Your task to perform on an android device: toggle wifi Image 0: 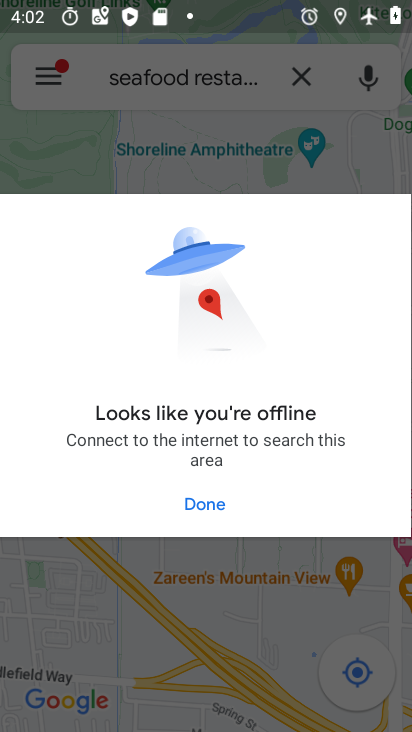
Step 0: press home button
Your task to perform on an android device: toggle wifi Image 1: 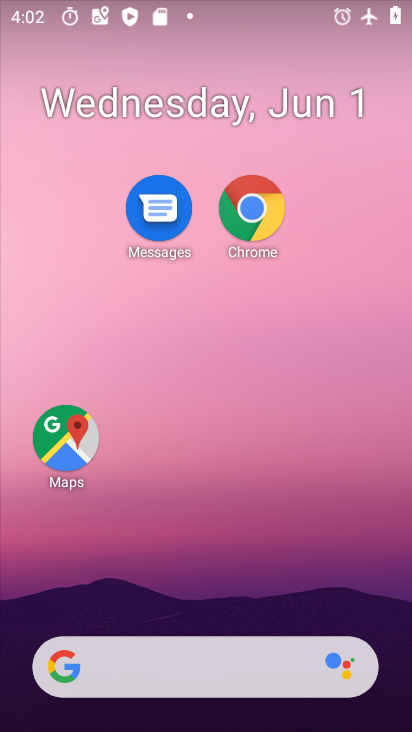
Step 1: drag from (226, 606) to (230, 165)
Your task to perform on an android device: toggle wifi Image 2: 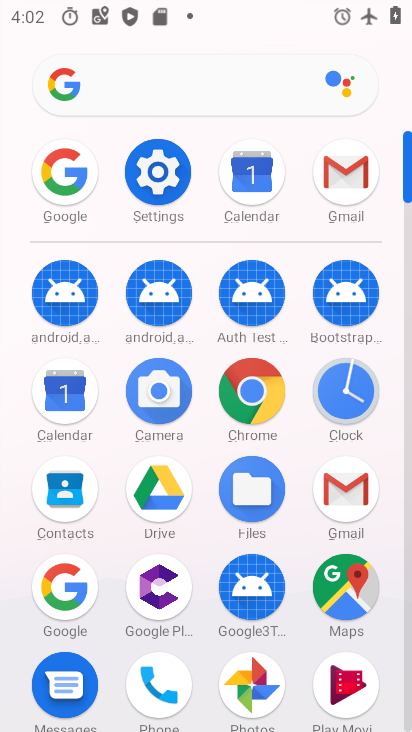
Step 2: click (173, 164)
Your task to perform on an android device: toggle wifi Image 3: 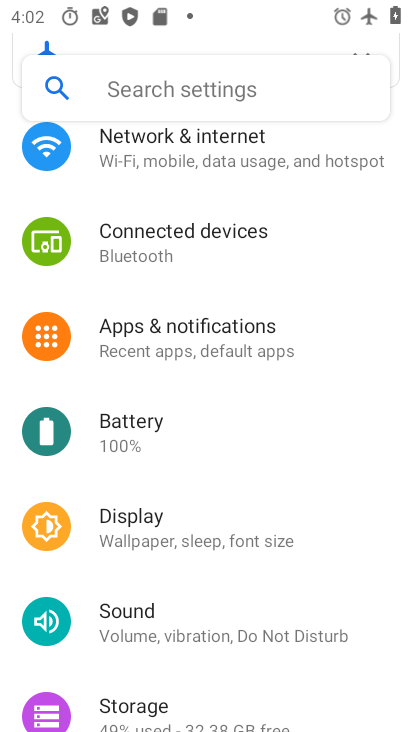
Step 3: click (173, 164)
Your task to perform on an android device: toggle wifi Image 4: 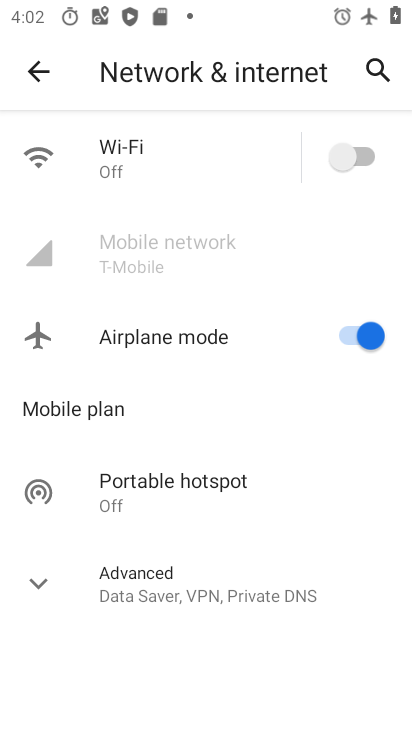
Step 4: click (356, 159)
Your task to perform on an android device: toggle wifi Image 5: 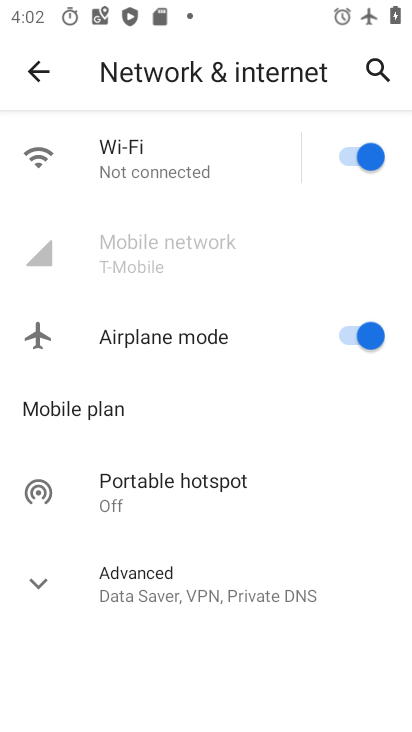
Step 5: task complete